Your task to perform on an android device: Open Google Chrome and click the shortcut for Amazon.com Image 0: 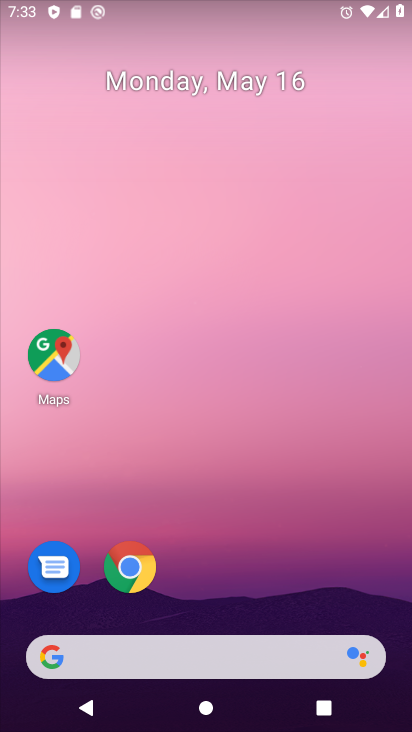
Step 0: click (140, 569)
Your task to perform on an android device: Open Google Chrome and click the shortcut for Amazon.com Image 1: 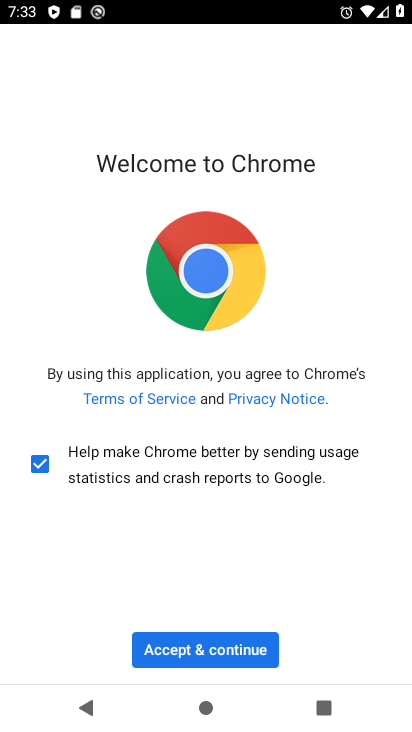
Step 1: click (222, 645)
Your task to perform on an android device: Open Google Chrome and click the shortcut for Amazon.com Image 2: 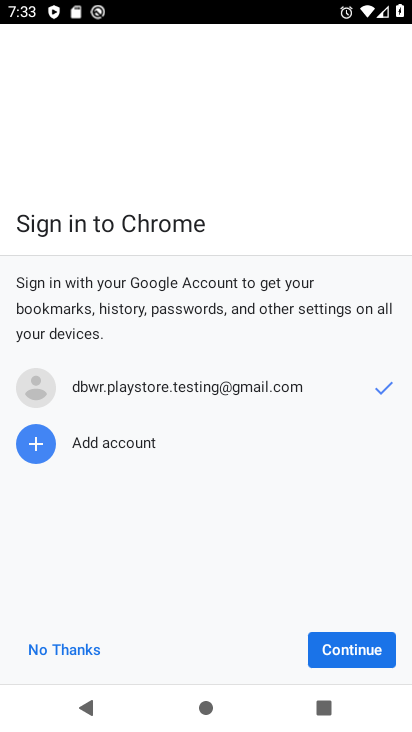
Step 2: click (331, 650)
Your task to perform on an android device: Open Google Chrome and click the shortcut for Amazon.com Image 3: 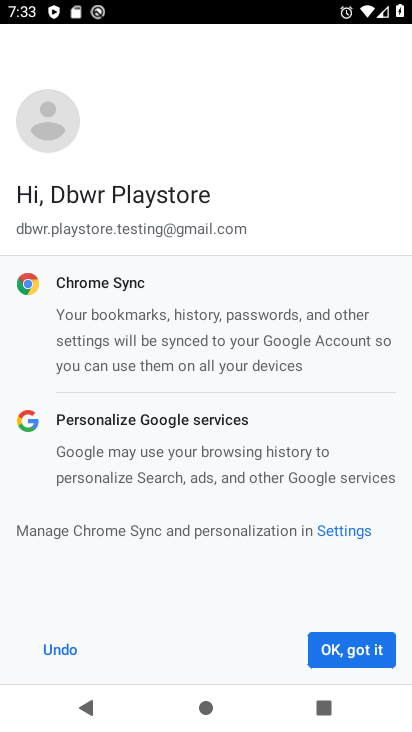
Step 3: click (328, 646)
Your task to perform on an android device: Open Google Chrome and click the shortcut for Amazon.com Image 4: 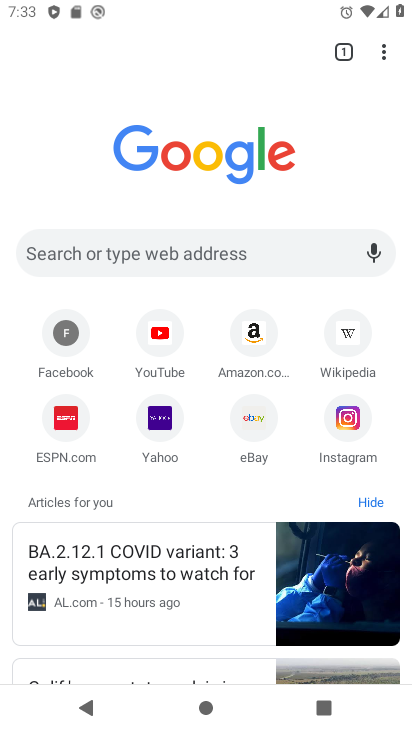
Step 4: click (244, 326)
Your task to perform on an android device: Open Google Chrome and click the shortcut for Amazon.com Image 5: 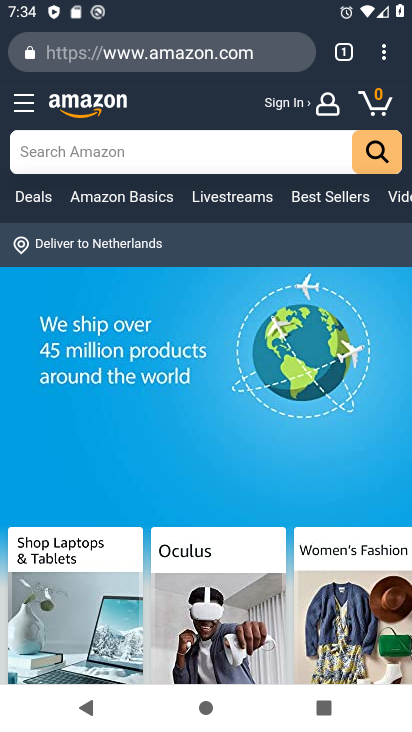
Step 5: task complete